Your task to perform on an android device: see tabs open on other devices in the chrome app Image 0: 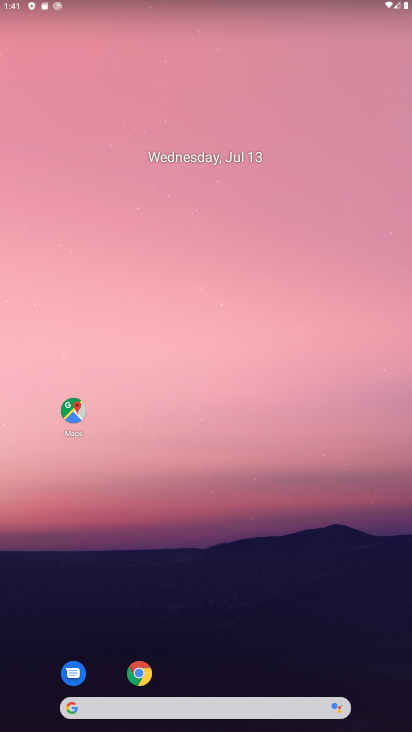
Step 0: click (140, 671)
Your task to perform on an android device: see tabs open on other devices in the chrome app Image 1: 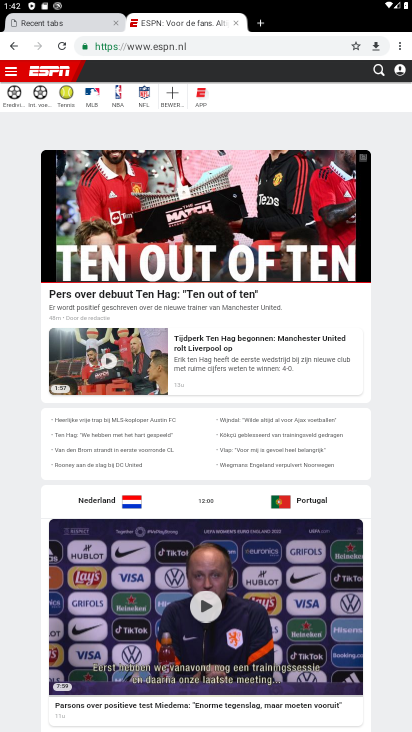
Step 1: click (401, 47)
Your task to perform on an android device: see tabs open on other devices in the chrome app Image 2: 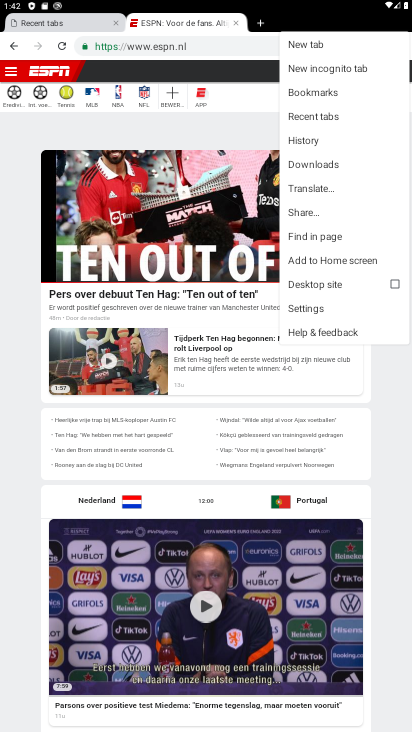
Step 2: click (317, 111)
Your task to perform on an android device: see tabs open on other devices in the chrome app Image 3: 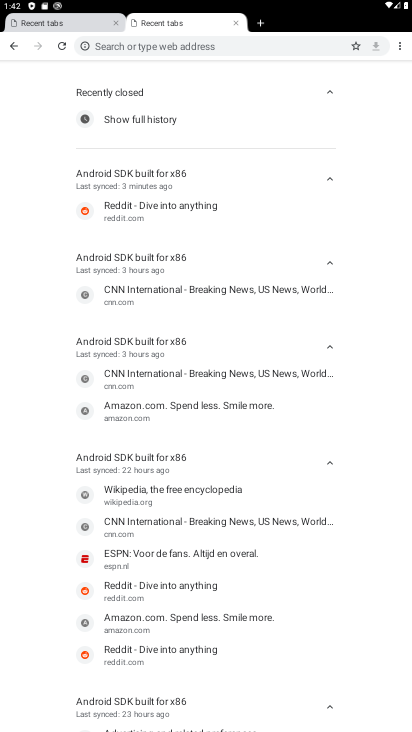
Step 3: task complete